Your task to perform on an android device: What's on my calendar today? Image 0: 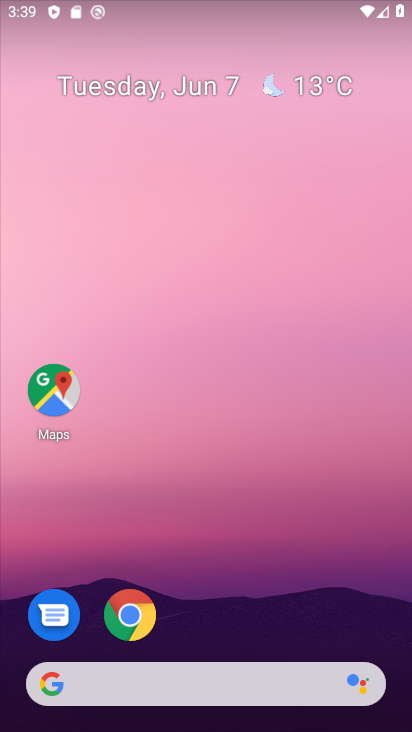
Step 0: drag from (234, 615) to (273, 272)
Your task to perform on an android device: What's on my calendar today? Image 1: 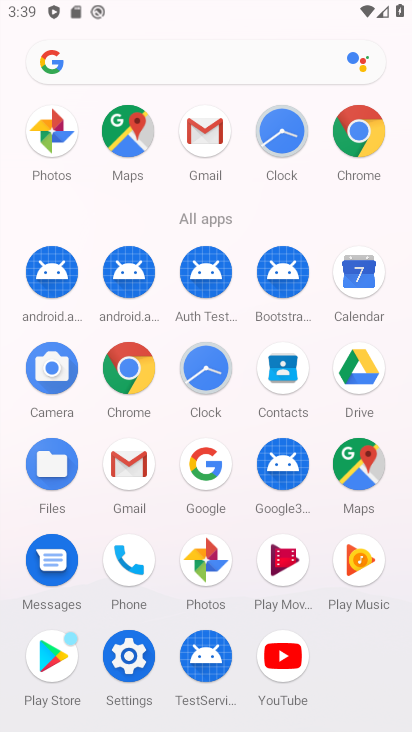
Step 1: click (372, 271)
Your task to perform on an android device: What's on my calendar today? Image 2: 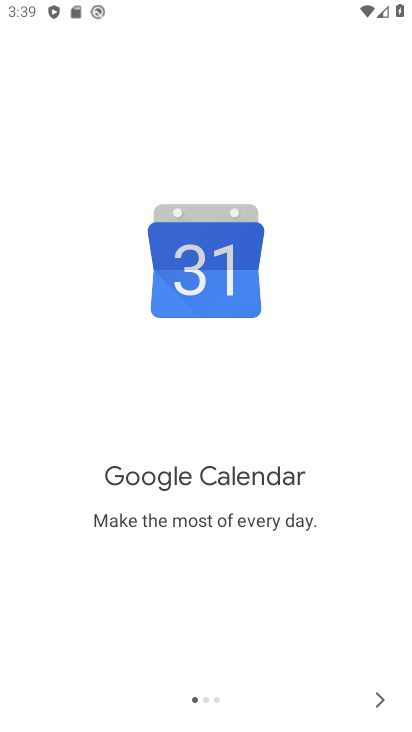
Step 2: click (373, 680)
Your task to perform on an android device: What's on my calendar today? Image 3: 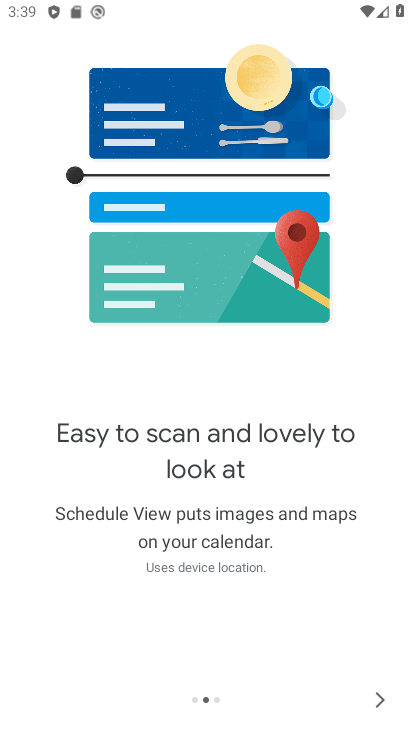
Step 3: click (376, 700)
Your task to perform on an android device: What's on my calendar today? Image 4: 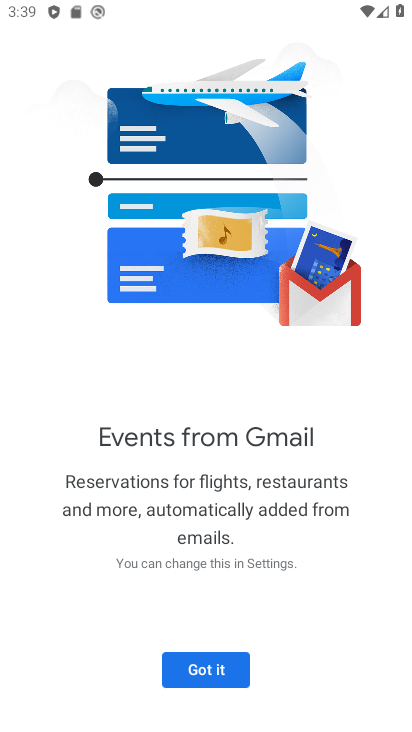
Step 4: click (222, 665)
Your task to perform on an android device: What's on my calendar today? Image 5: 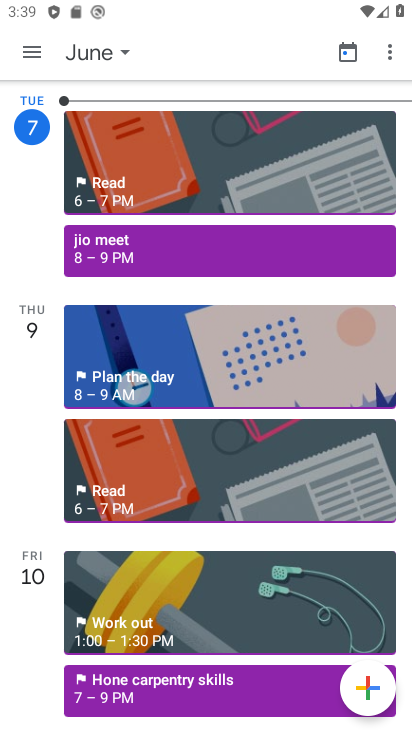
Step 5: click (35, 57)
Your task to perform on an android device: What's on my calendar today? Image 6: 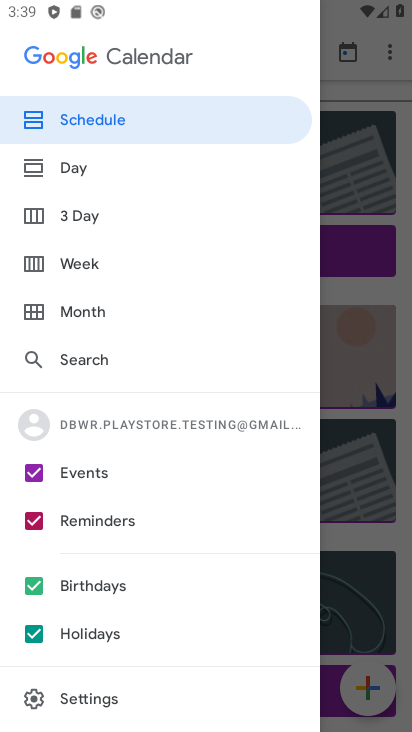
Step 6: click (83, 178)
Your task to perform on an android device: What's on my calendar today? Image 7: 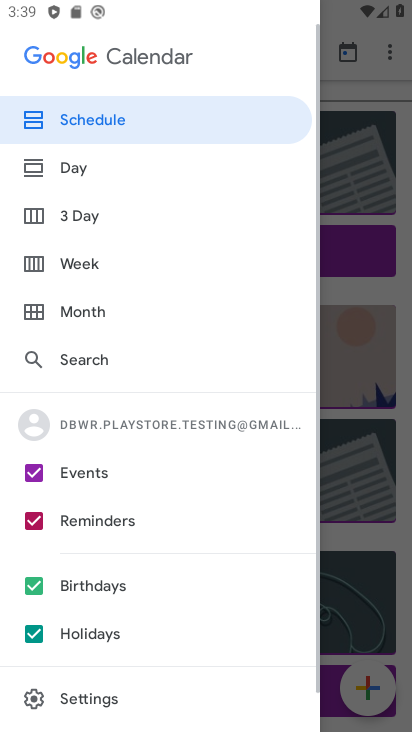
Step 7: click (77, 170)
Your task to perform on an android device: What's on my calendar today? Image 8: 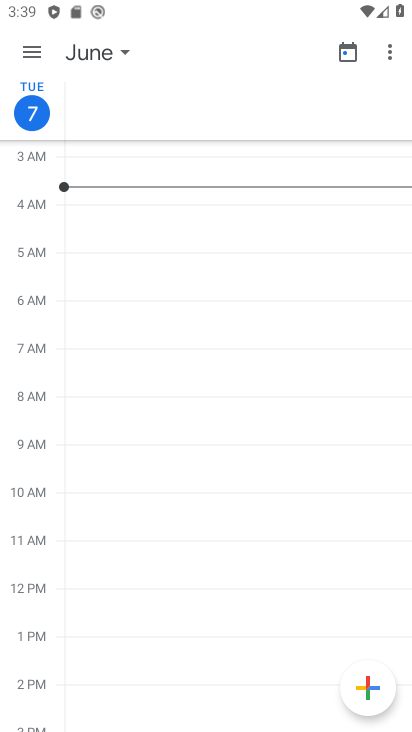
Step 8: task complete